Your task to perform on an android device: Open privacy settings Image 0: 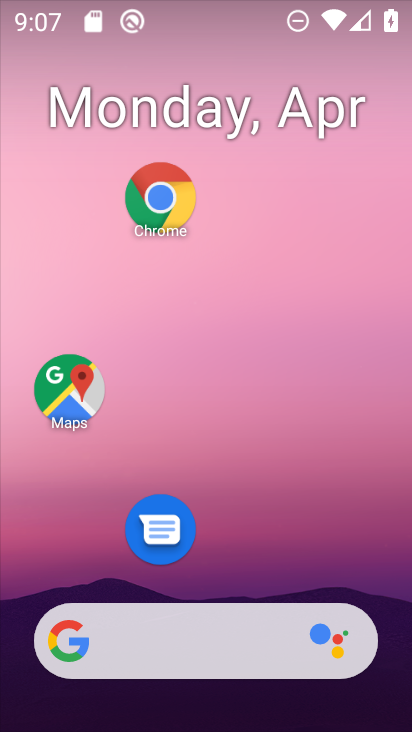
Step 0: drag from (227, 398) to (294, 43)
Your task to perform on an android device: Open privacy settings Image 1: 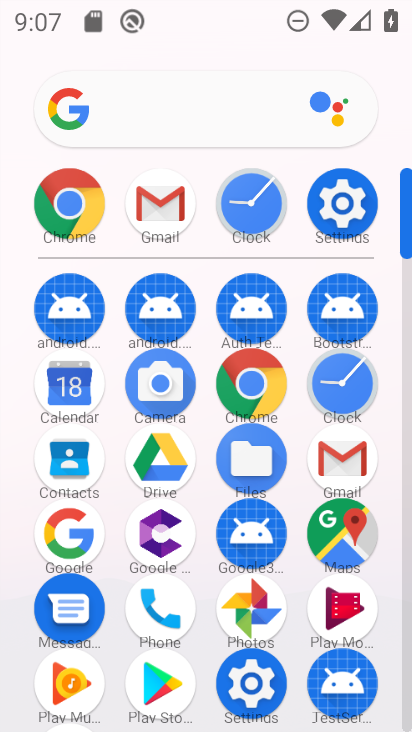
Step 1: click (346, 187)
Your task to perform on an android device: Open privacy settings Image 2: 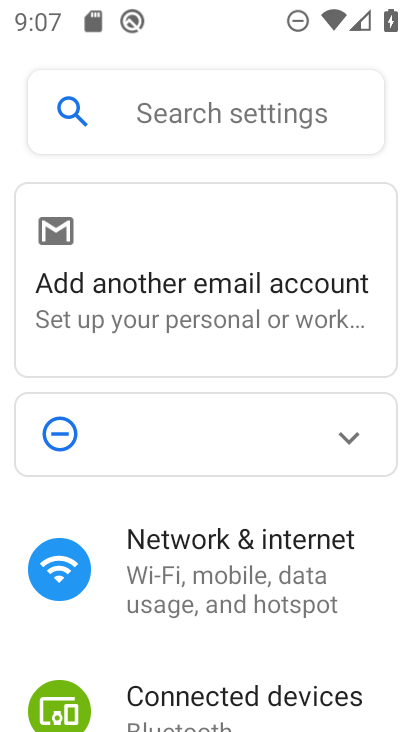
Step 2: drag from (199, 616) to (259, 89)
Your task to perform on an android device: Open privacy settings Image 3: 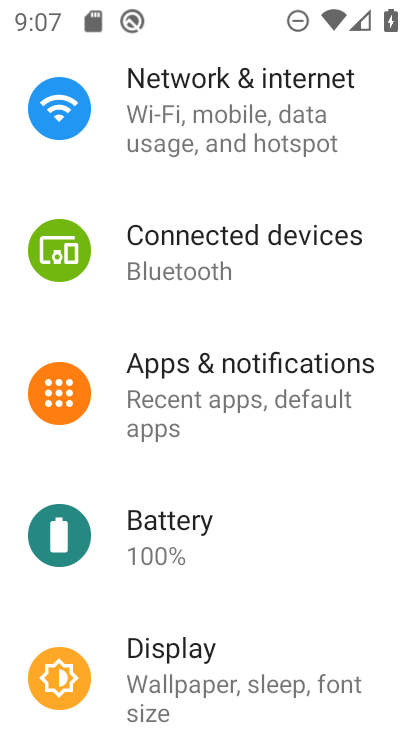
Step 3: drag from (202, 622) to (251, 129)
Your task to perform on an android device: Open privacy settings Image 4: 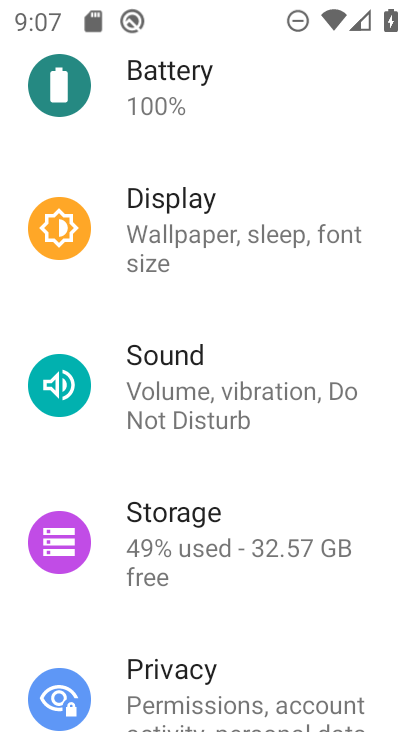
Step 4: click (191, 681)
Your task to perform on an android device: Open privacy settings Image 5: 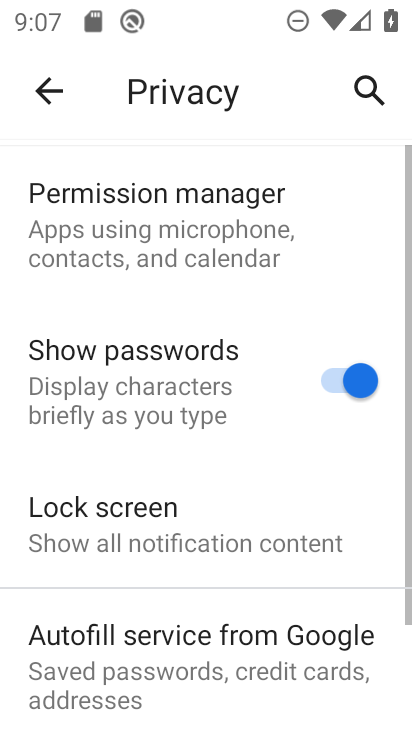
Step 5: task complete